Your task to perform on an android device: move a message to another label in the gmail app Image 0: 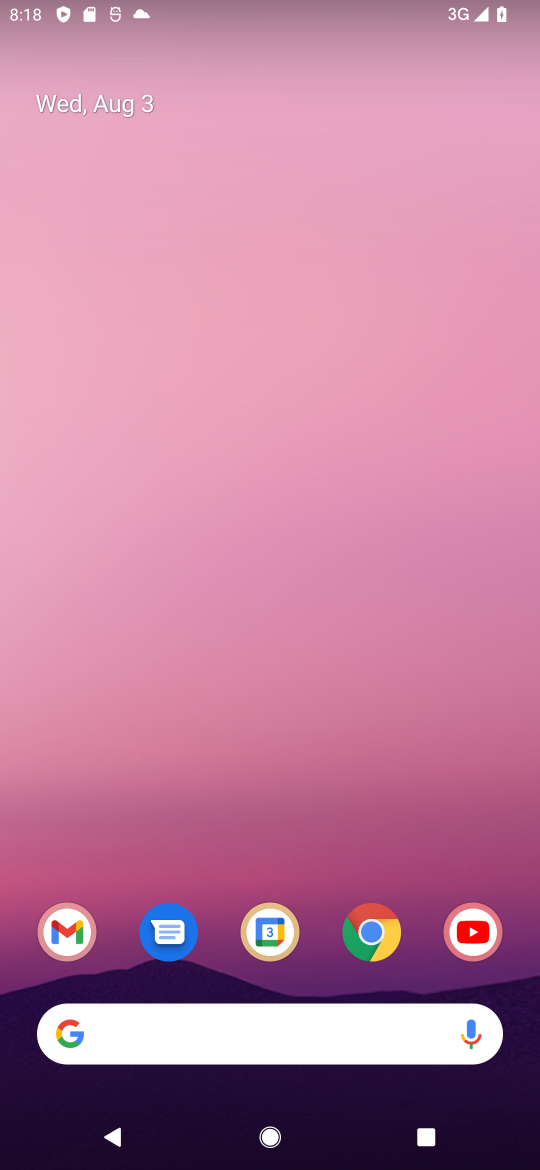
Step 0: click (63, 925)
Your task to perform on an android device: move a message to another label in the gmail app Image 1: 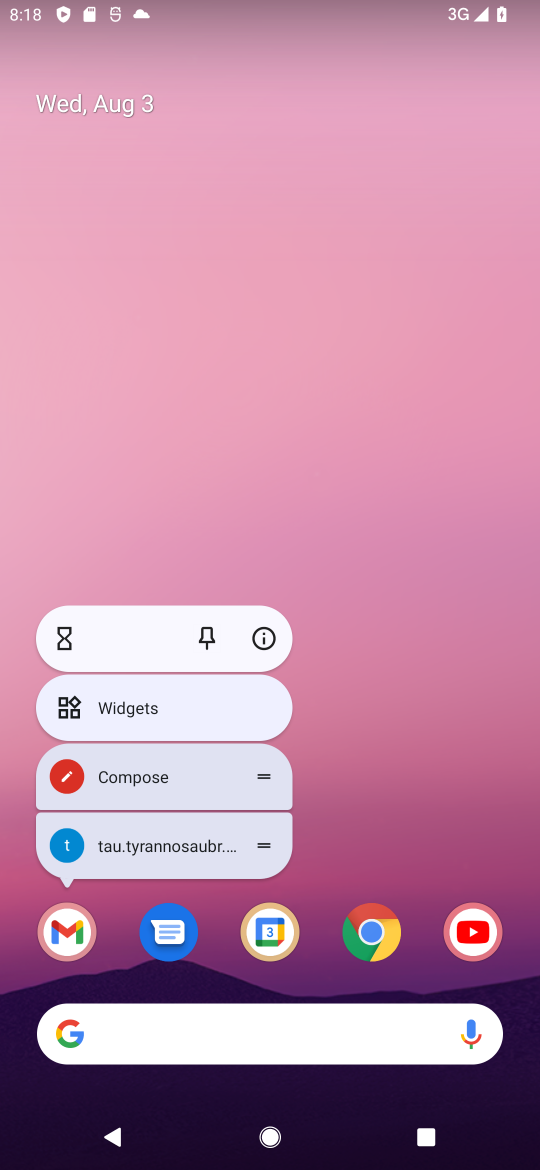
Step 1: click (65, 949)
Your task to perform on an android device: move a message to another label in the gmail app Image 2: 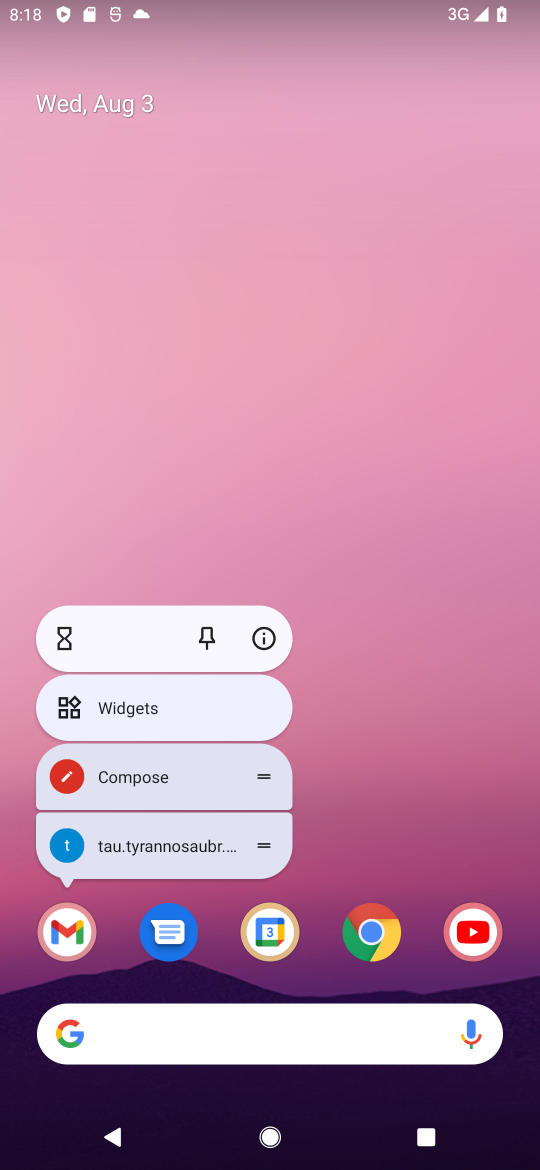
Step 2: click (65, 949)
Your task to perform on an android device: move a message to another label in the gmail app Image 3: 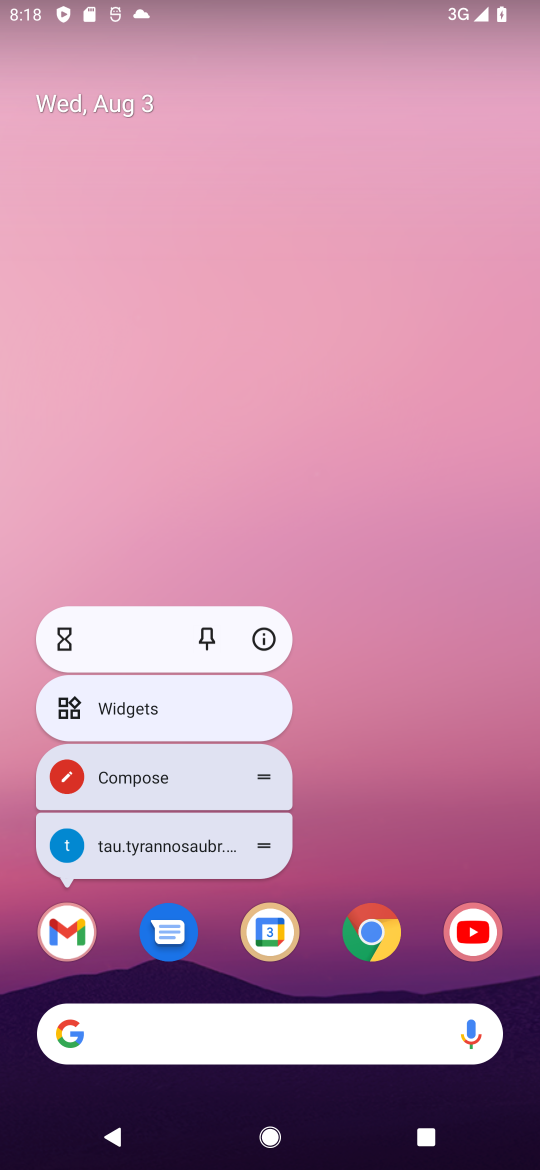
Step 3: click (68, 935)
Your task to perform on an android device: move a message to another label in the gmail app Image 4: 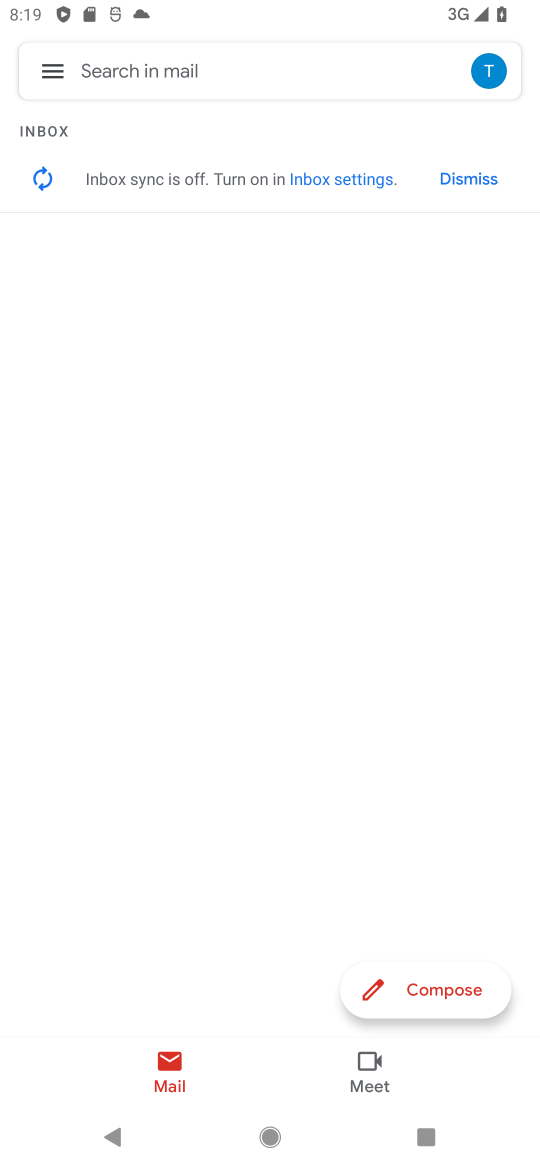
Step 4: task complete